Your task to perform on an android device: turn on airplane mode Image 0: 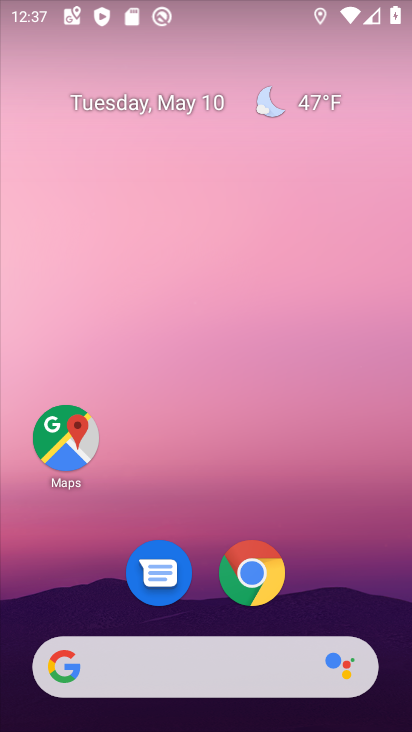
Step 0: click (188, 183)
Your task to perform on an android device: turn on airplane mode Image 1: 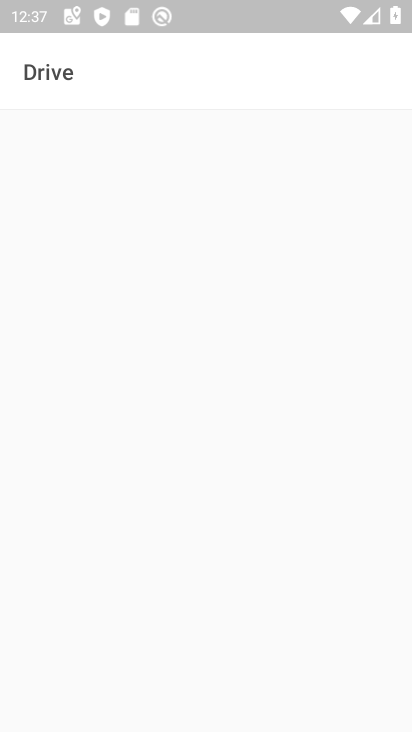
Step 1: click (274, 406)
Your task to perform on an android device: turn on airplane mode Image 2: 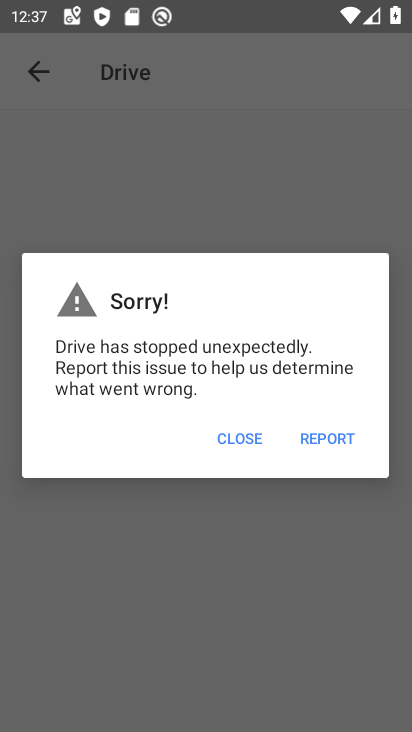
Step 2: press home button
Your task to perform on an android device: turn on airplane mode Image 3: 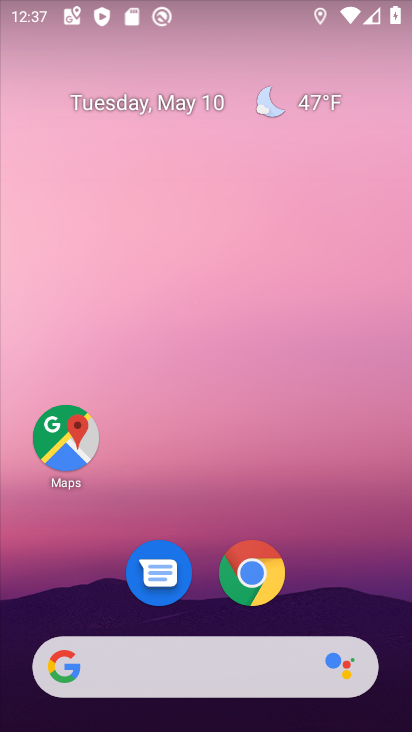
Step 3: drag from (176, 584) to (253, 306)
Your task to perform on an android device: turn on airplane mode Image 4: 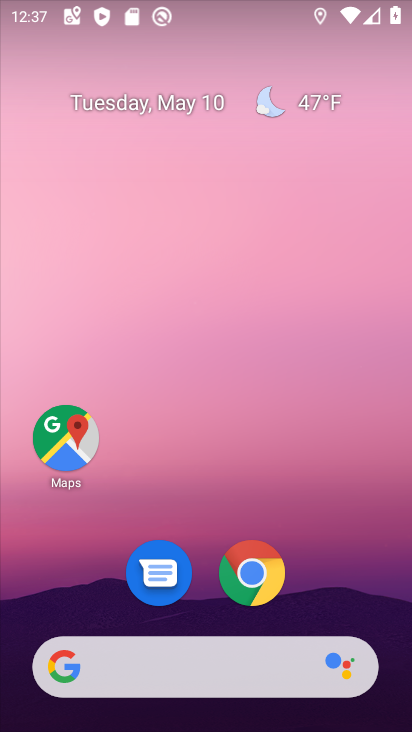
Step 4: drag from (197, 623) to (191, 253)
Your task to perform on an android device: turn on airplane mode Image 5: 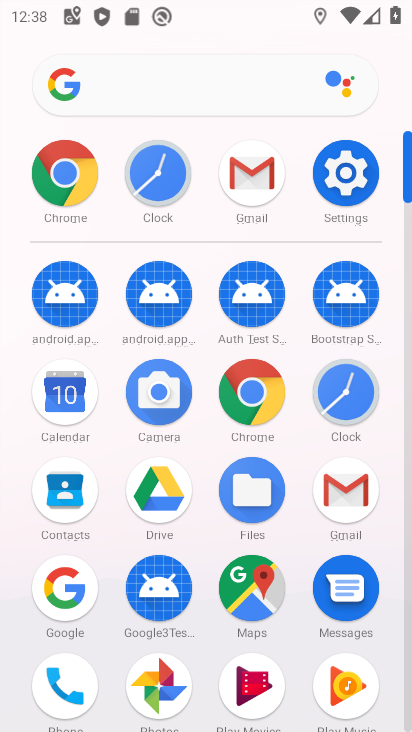
Step 5: click (344, 173)
Your task to perform on an android device: turn on airplane mode Image 6: 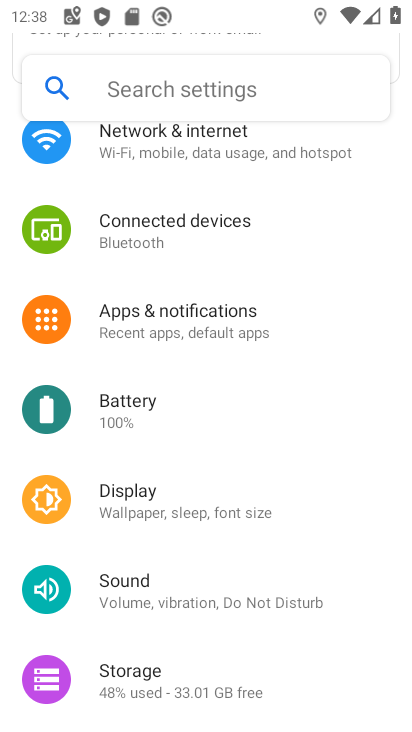
Step 6: drag from (230, 256) to (208, 730)
Your task to perform on an android device: turn on airplane mode Image 7: 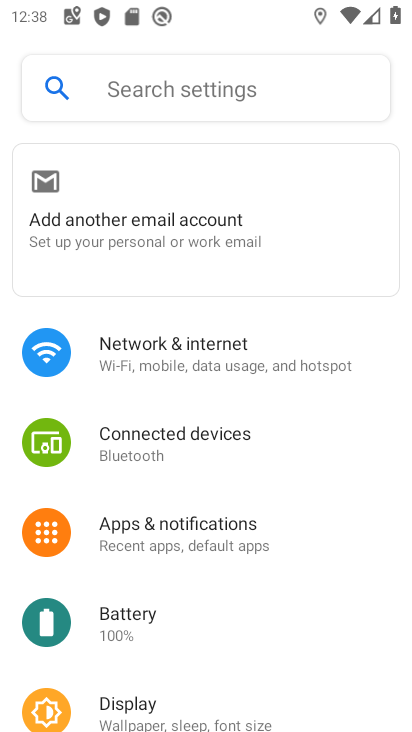
Step 7: click (155, 369)
Your task to perform on an android device: turn on airplane mode Image 8: 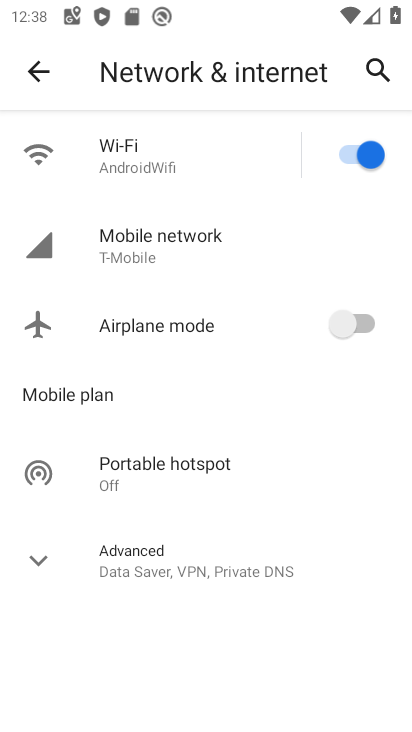
Step 8: click (193, 326)
Your task to perform on an android device: turn on airplane mode Image 9: 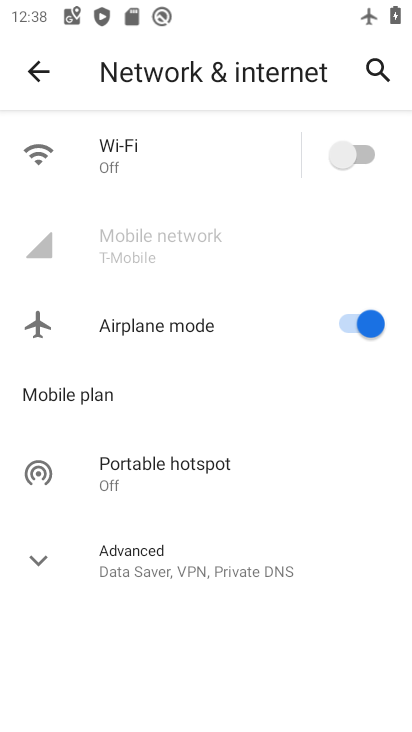
Step 9: task complete